Your task to perform on an android device: open the mobile data screen to see how much data has been used Image 0: 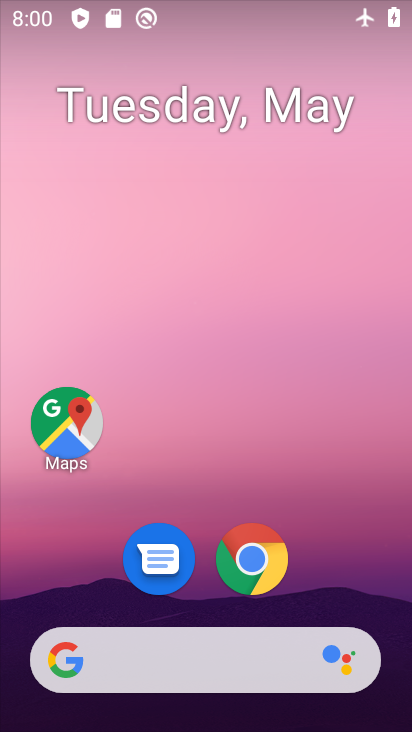
Step 0: drag from (205, 605) to (171, 165)
Your task to perform on an android device: open the mobile data screen to see how much data has been used Image 1: 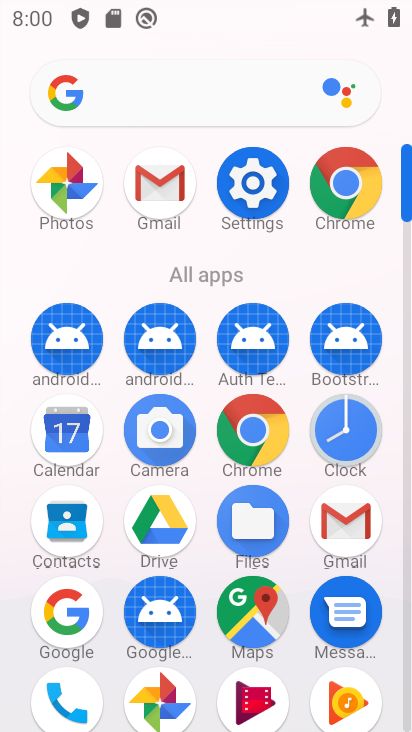
Step 1: click (244, 189)
Your task to perform on an android device: open the mobile data screen to see how much data has been used Image 2: 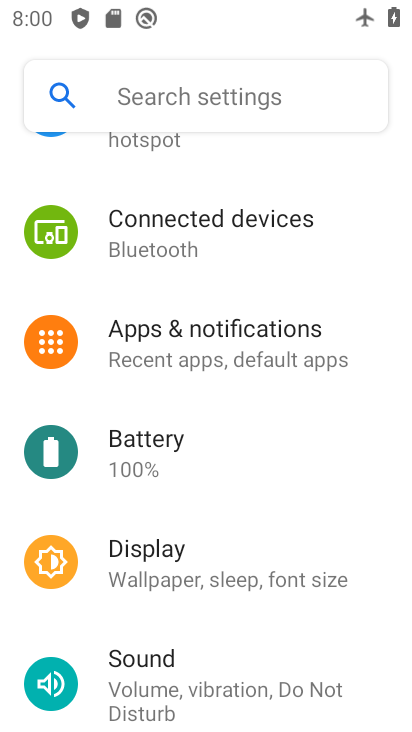
Step 2: drag from (241, 192) to (229, 527)
Your task to perform on an android device: open the mobile data screen to see how much data has been used Image 3: 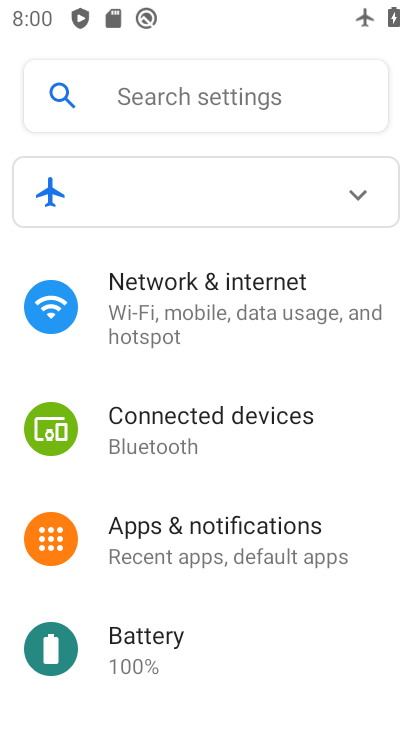
Step 3: click (174, 323)
Your task to perform on an android device: open the mobile data screen to see how much data has been used Image 4: 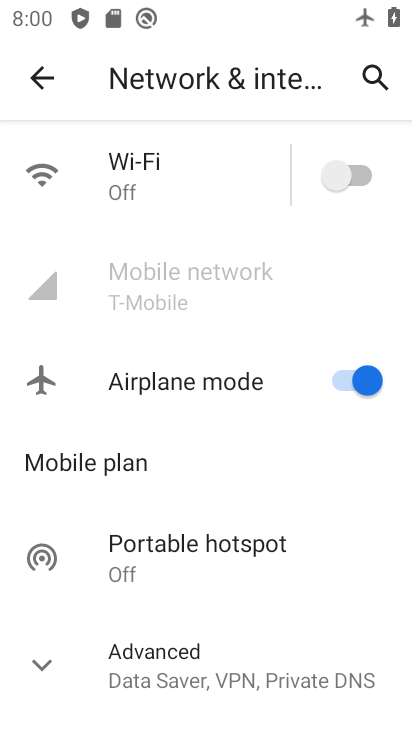
Step 4: click (169, 282)
Your task to perform on an android device: open the mobile data screen to see how much data has been used Image 5: 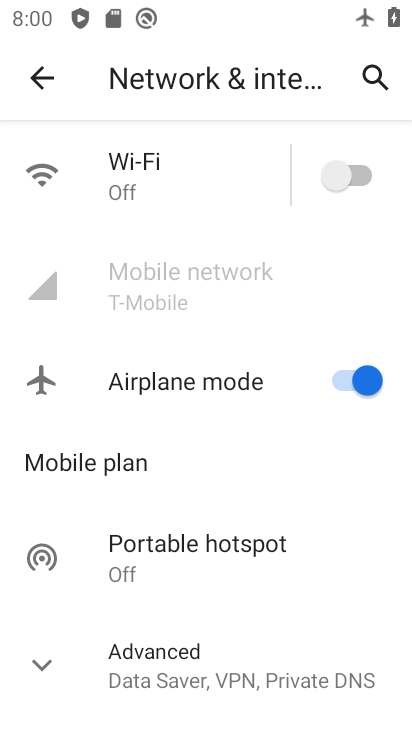
Step 5: task complete